Your task to perform on an android device: Open settings on Google Maps Image 0: 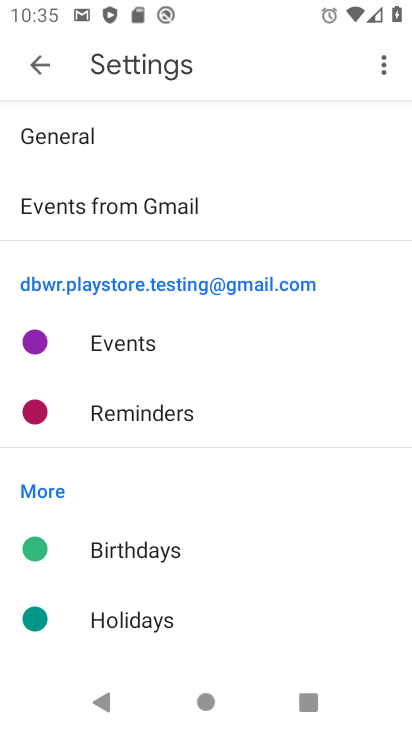
Step 0: press home button
Your task to perform on an android device: Open settings on Google Maps Image 1: 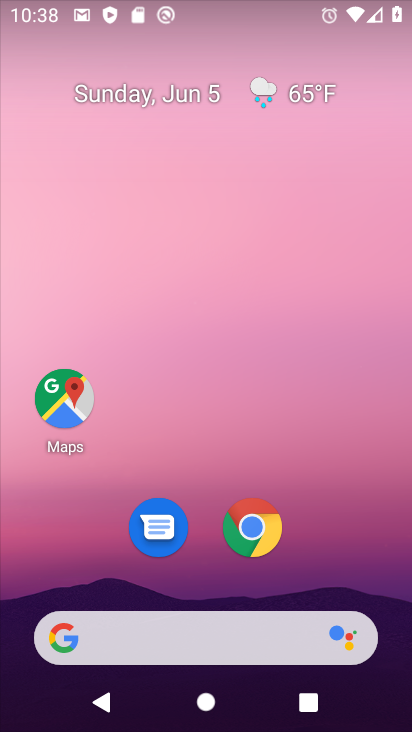
Step 1: click (58, 401)
Your task to perform on an android device: Open settings on Google Maps Image 2: 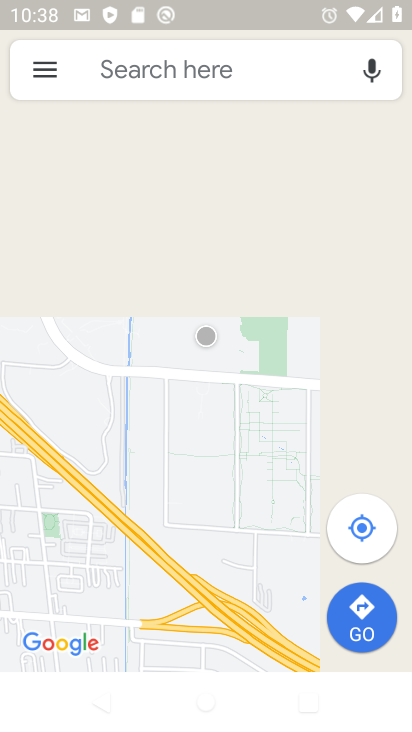
Step 2: click (51, 81)
Your task to perform on an android device: Open settings on Google Maps Image 3: 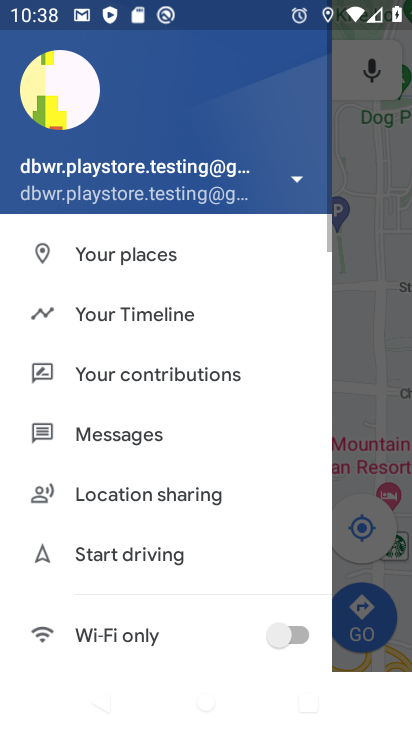
Step 3: drag from (14, 603) to (187, 160)
Your task to perform on an android device: Open settings on Google Maps Image 4: 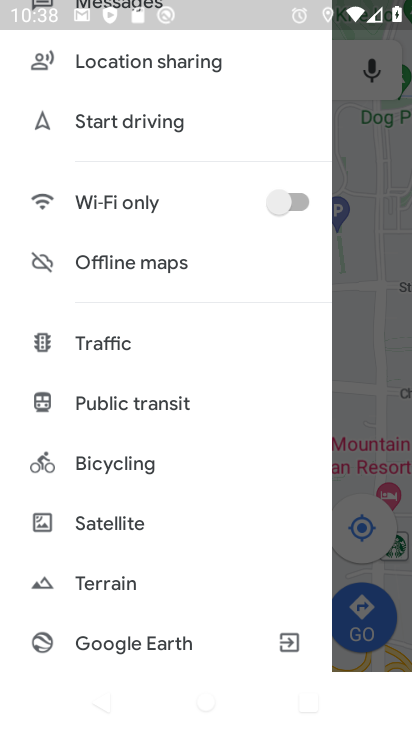
Step 4: drag from (55, 658) to (194, 171)
Your task to perform on an android device: Open settings on Google Maps Image 5: 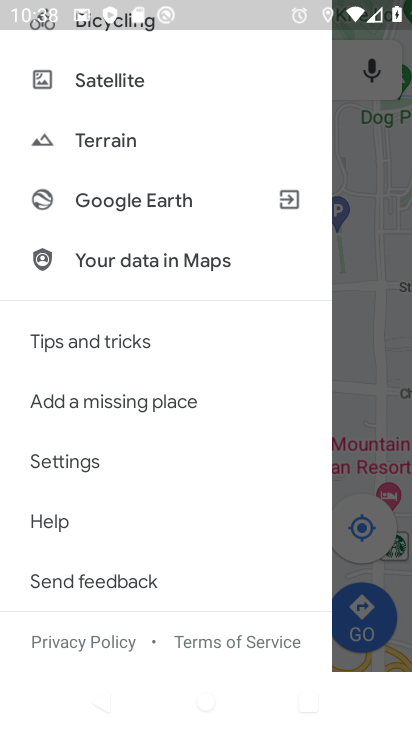
Step 5: click (47, 463)
Your task to perform on an android device: Open settings on Google Maps Image 6: 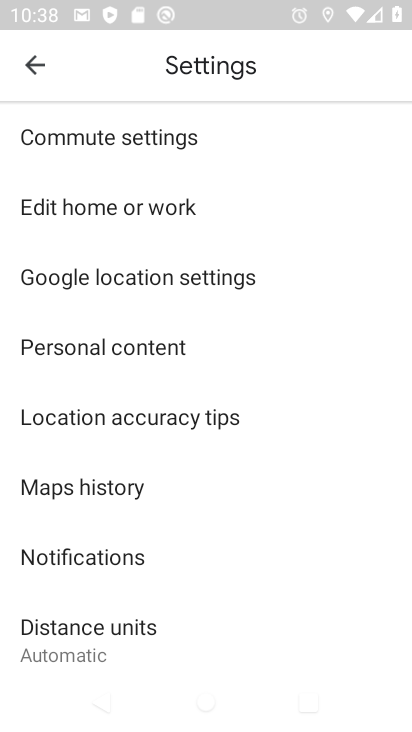
Step 6: task complete